Your task to perform on an android device: all mails in gmail Image 0: 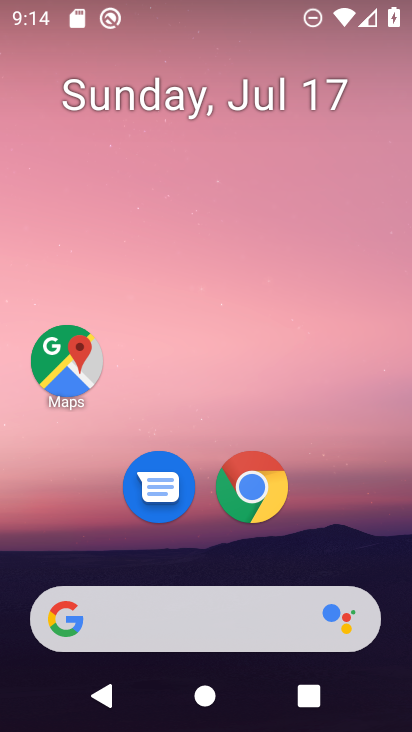
Step 0: drag from (351, 487) to (384, 15)
Your task to perform on an android device: all mails in gmail Image 1: 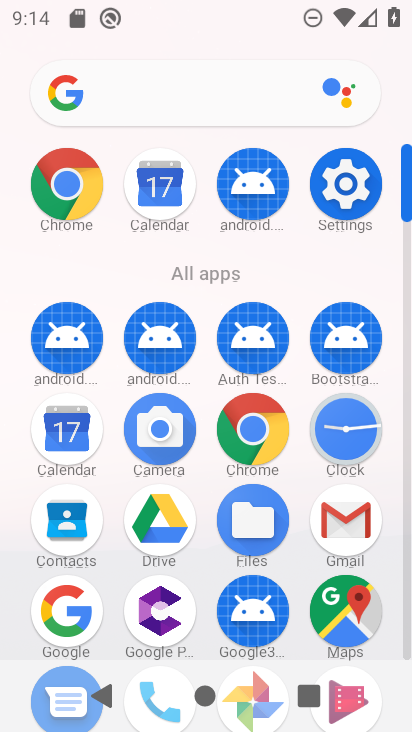
Step 1: click (331, 518)
Your task to perform on an android device: all mails in gmail Image 2: 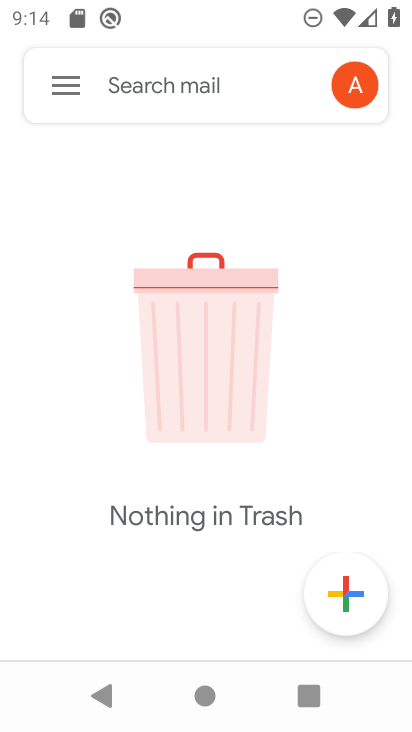
Step 2: click (74, 95)
Your task to perform on an android device: all mails in gmail Image 3: 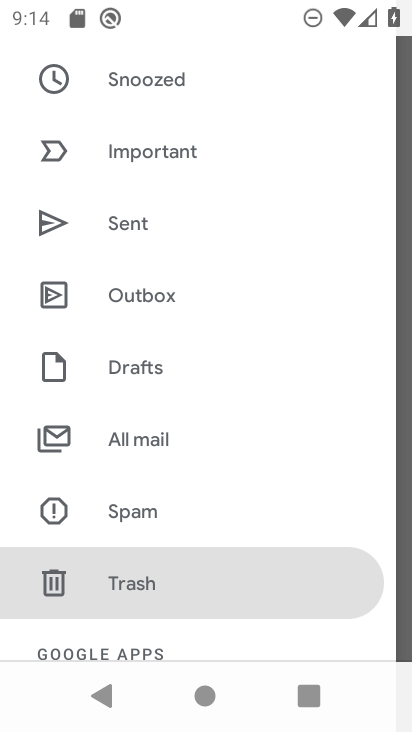
Step 3: click (138, 437)
Your task to perform on an android device: all mails in gmail Image 4: 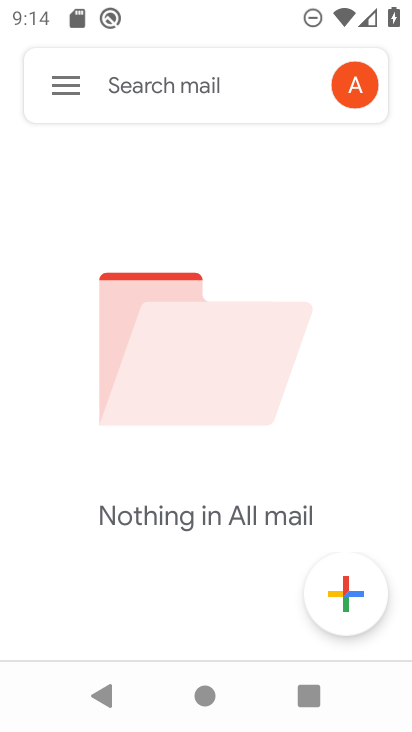
Step 4: task complete